Your task to perform on an android device: set an alarm Image 0: 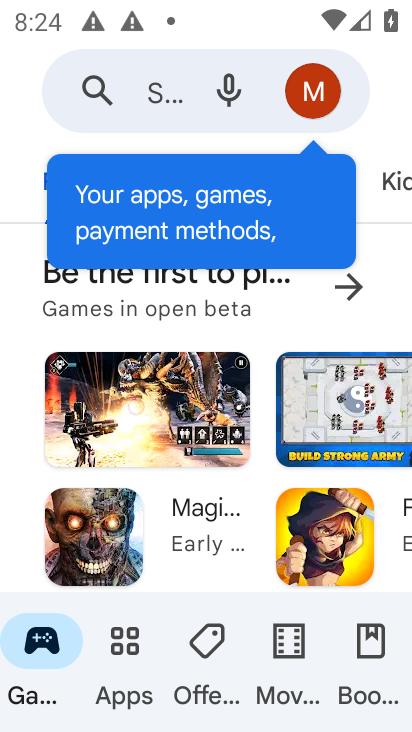
Step 0: press home button
Your task to perform on an android device: set an alarm Image 1: 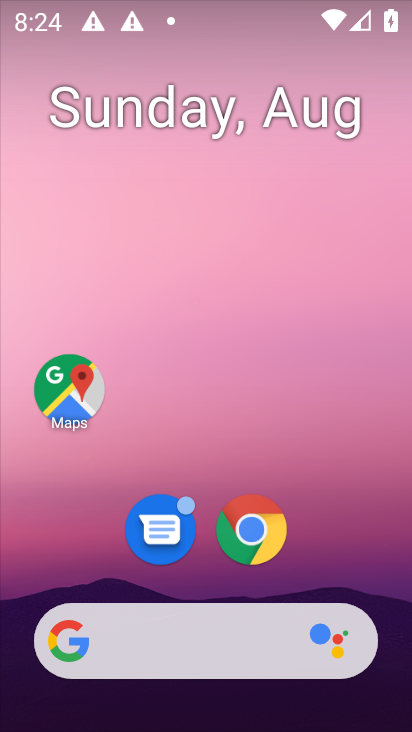
Step 1: drag from (224, 573) to (185, 59)
Your task to perform on an android device: set an alarm Image 2: 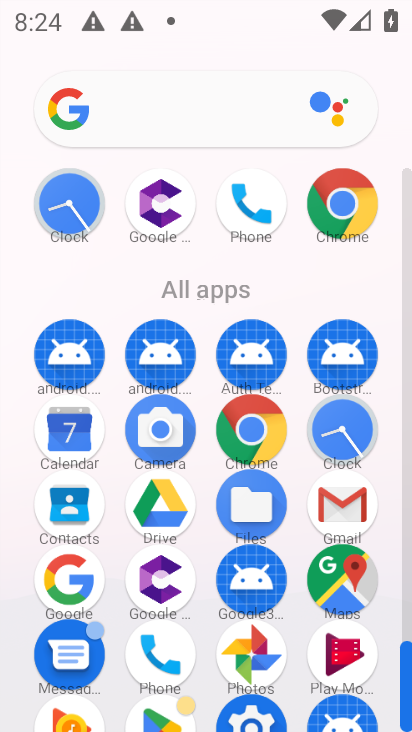
Step 2: click (354, 440)
Your task to perform on an android device: set an alarm Image 3: 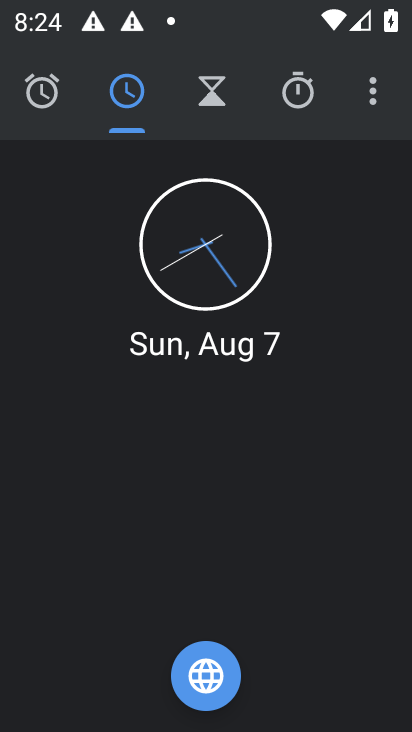
Step 3: click (55, 92)
Your task to perform on an android device: set an alarm Image 4: 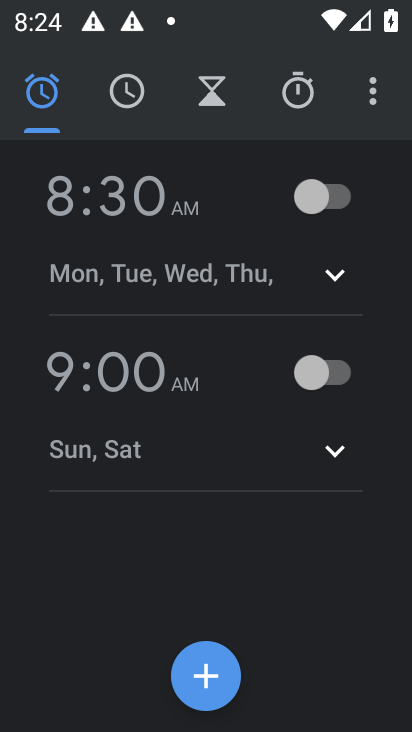
Step 4: click (115, 225)
Your task to perform on an android device: set an alarm Image 5: 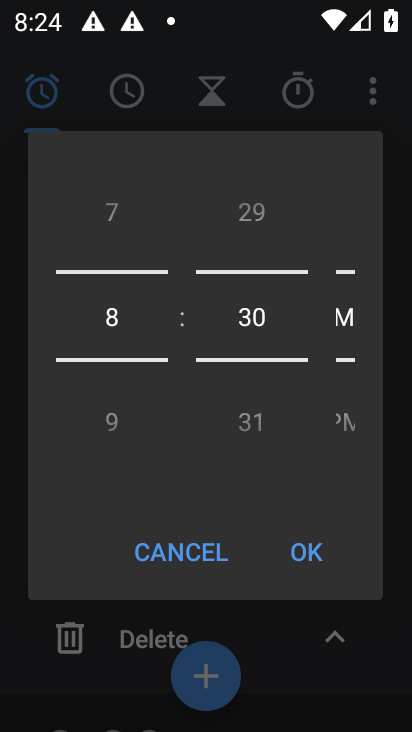
Step 5: drag from (119, 325) to (106, 441)
Your task to perform on an android device: set an alarm Image 6: 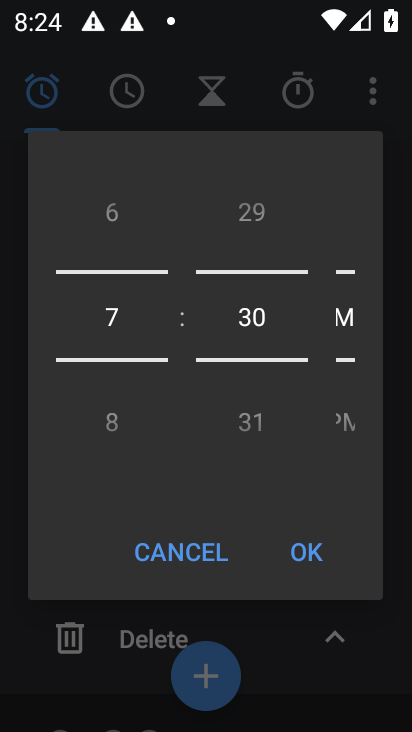
Step 6: drag from (264, 337) to (243, 62)
Your task to perform on an android device: set an alarm Image 7: 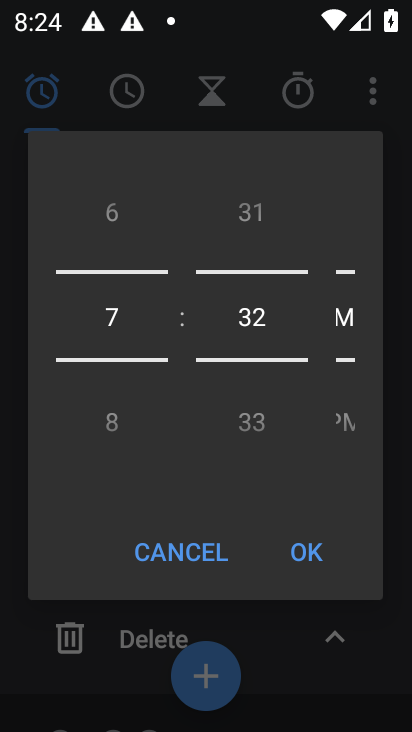
Step 7: click (344, 408)
Your task to perform on an android device: set an alarm Image 8: 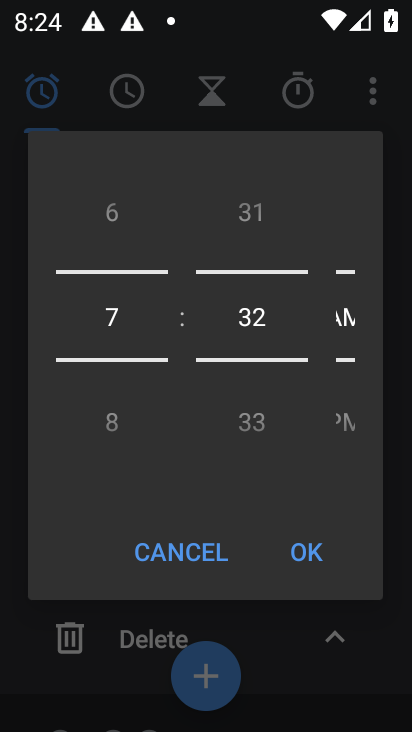
Step 8: click (341, 426)
Your task to perform on an android device: set an alarm Image 9: 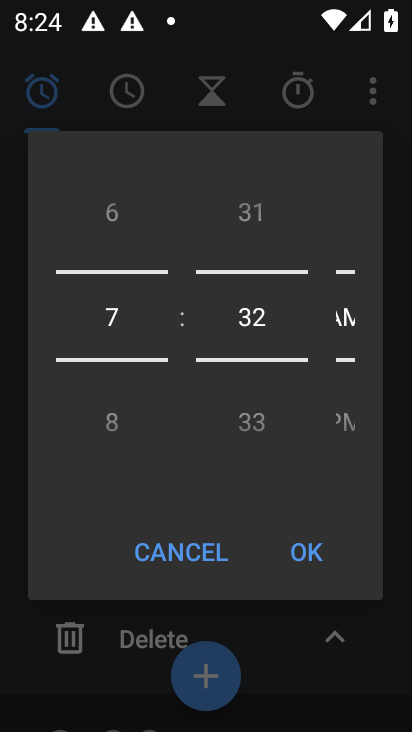
Step 9: drag from (346, 422) to (327, 224)
Your task to perform on an android device: set an alarm Image 10: 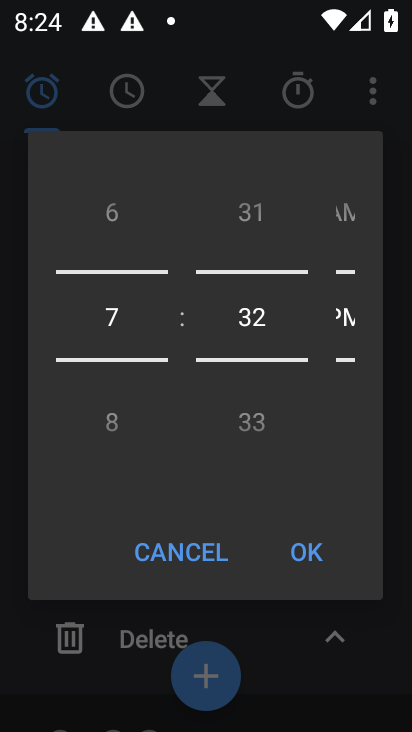
Step 10: click (313, 554)
Your task to perform on an android device: set an alarm Image 11: 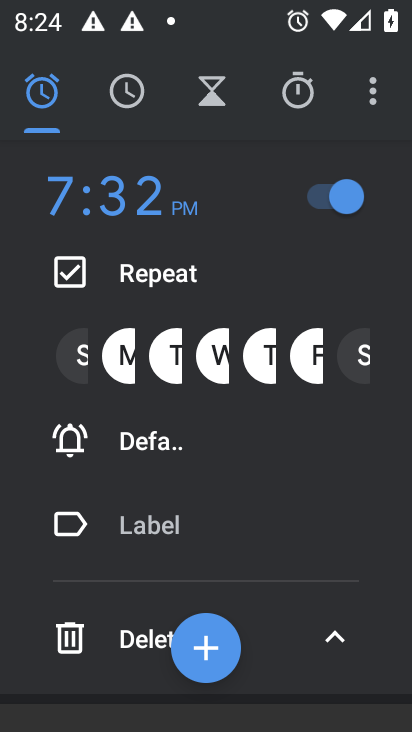
Step 11: click (219, 358)
Your task to perform on an android device: set an alarm Image 12: 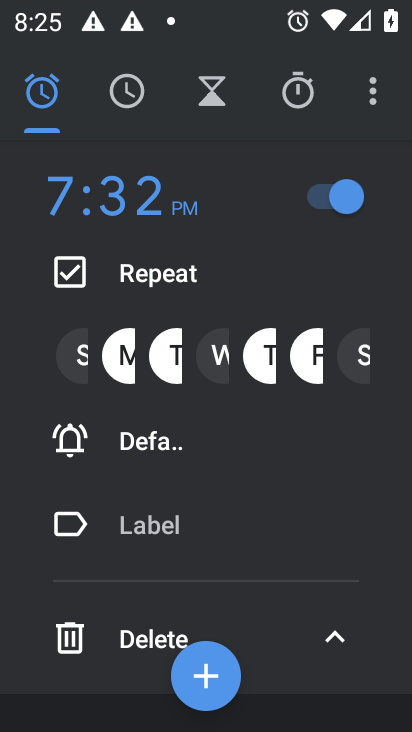
Step 12: task complete